Your task to perform on an android device: Open accessibility settings Image 0: 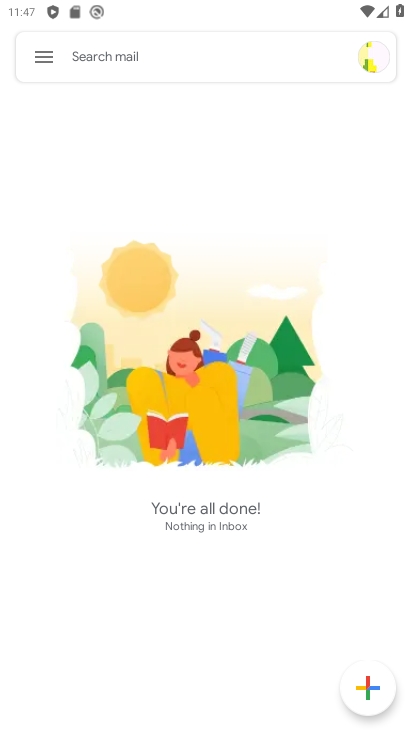
Step 0: press home button
Your task to perform on an android device: Open accessibility settings Image 1: 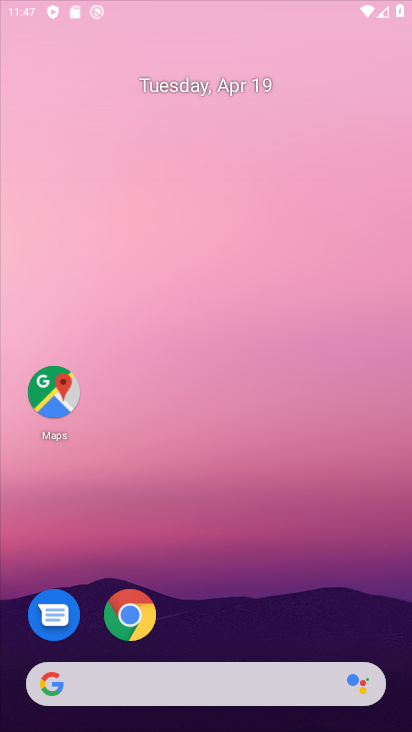
Step 1: drag from (214, 569) to (239, 177)
Your task to perform on an android device: Open accessibility settings Image 2: 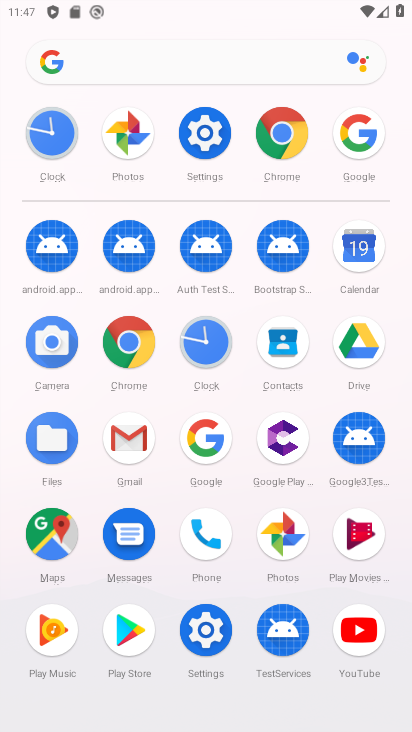
Step 2: click (197, 626)
Your task to perform on an android device: Open accessibility settings Image 3: 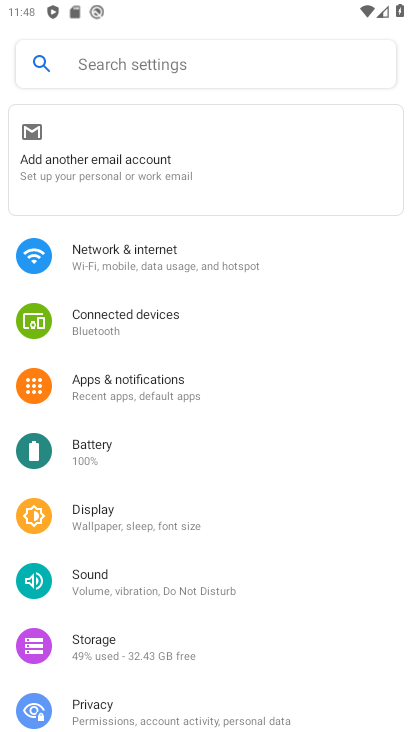
Step 3: drag from (152, 519) to (156, 173)
Your task to perform on an android device: Open accessibility settings Image 4: 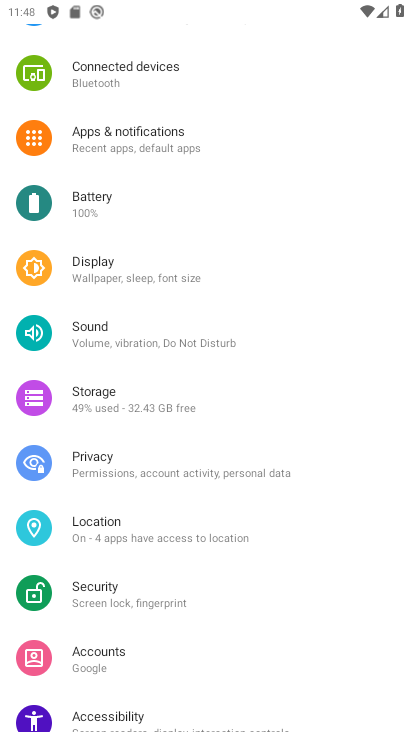
Step 4: drag from (189, 580) to (201, 391)
Your task to perform on an android device: Open accessibility settings Image 5: 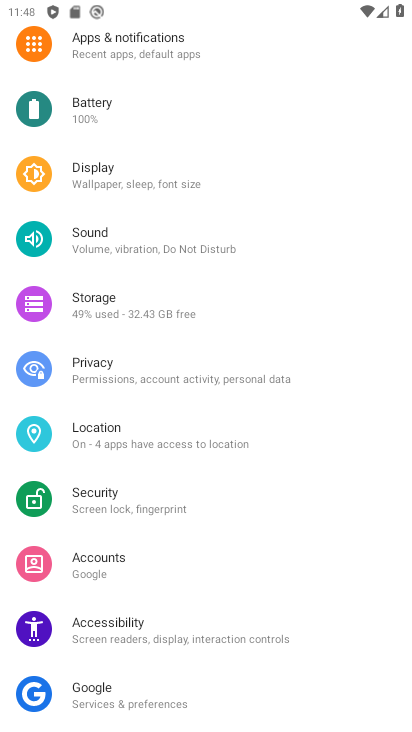
Step 5: click (126, 625)
Your task to perform on an android device: Open accessibility settings Image 6: 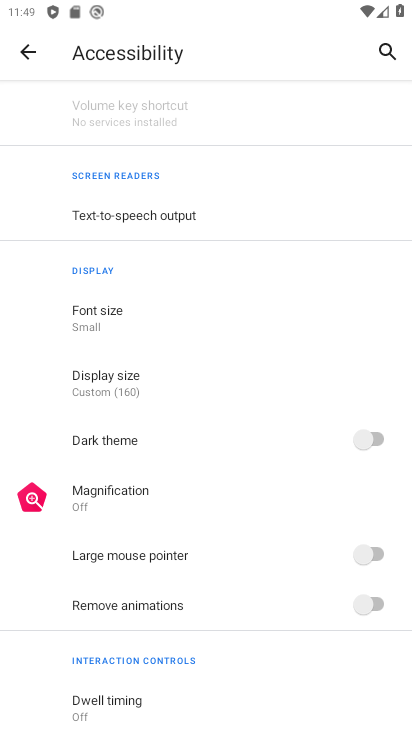
Step 6: task complete